Your task to perform on an android device: toggle data saver in the chrome app Image 0: 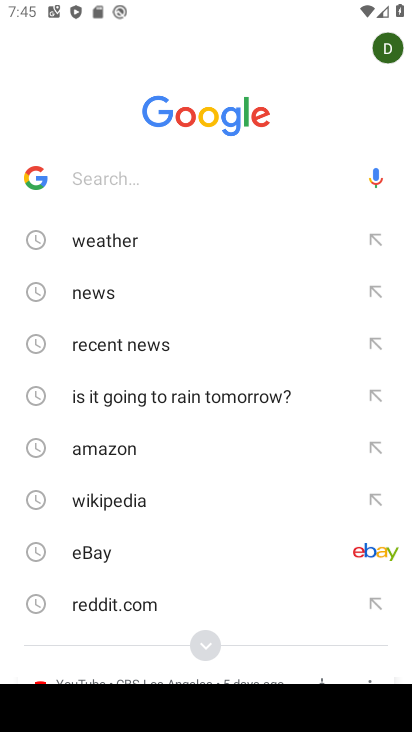
Step 0: press home button
Your task to perform on an android device: toggle data saver in the chrome app Image 1: 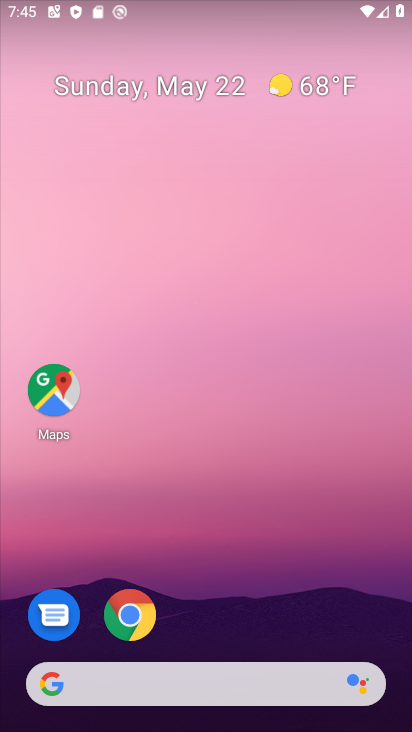
Step 1: click (151, 614)
Your task to perform on an android device: toggle data saver in the chrome app Image 2: 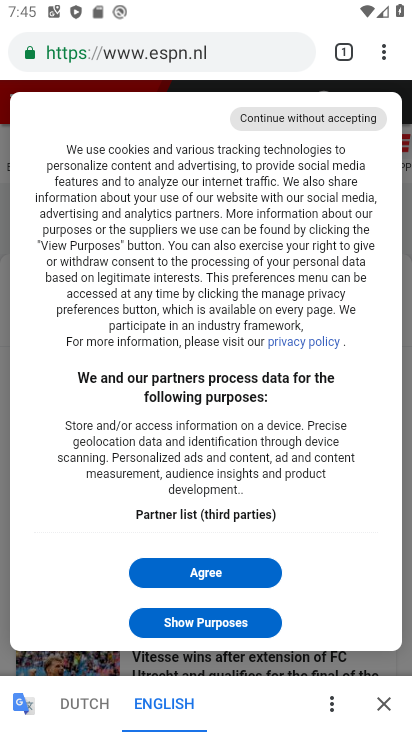
Step 2: click (389, 53)
Your task to perform on an android device: toggle data saver in the chrome app Image 3: 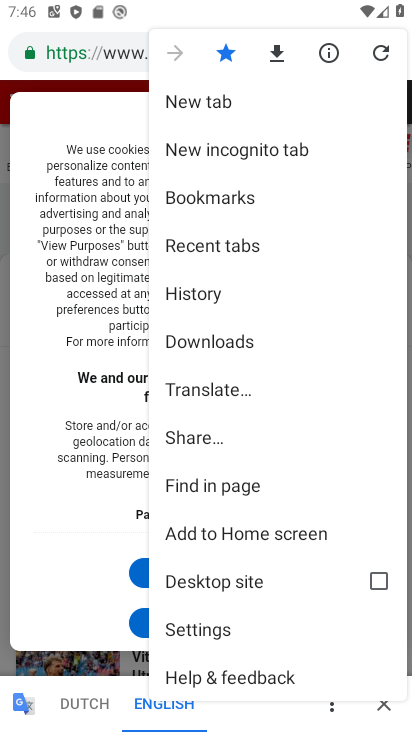
Step 3: click (188, 633)
Your task to perform on an android device: toggle data saver in the chrome app Image 4: 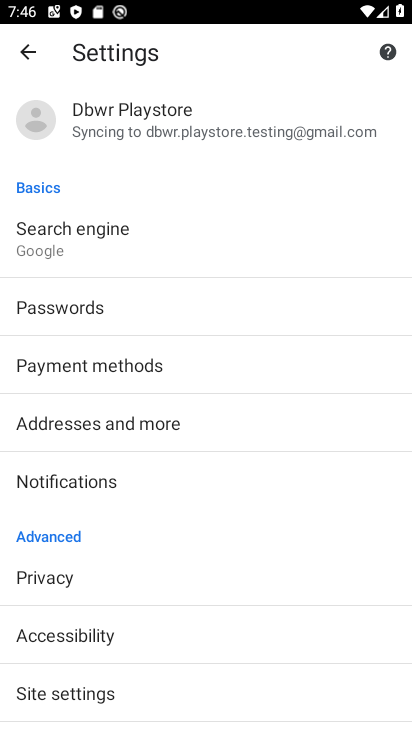
Step 4: drag from (188, 633) to (118, 88)
Your task to perform on an android device: toggle data saver in the chrome app Image 5: 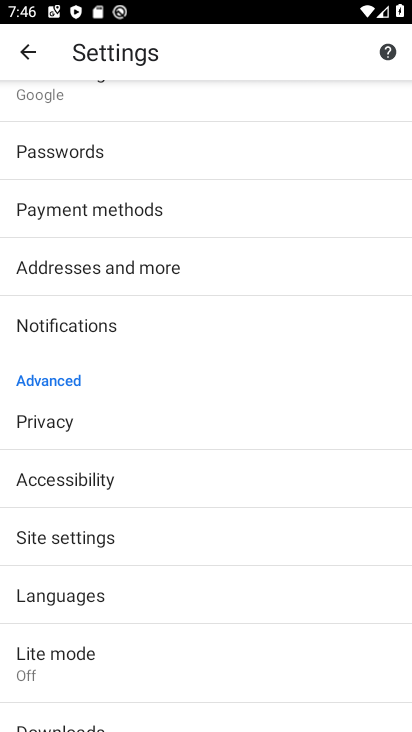
Step 5: click (30, 656)
Your task to perform on an android device: toggle data saver in the chrome app Image 6: 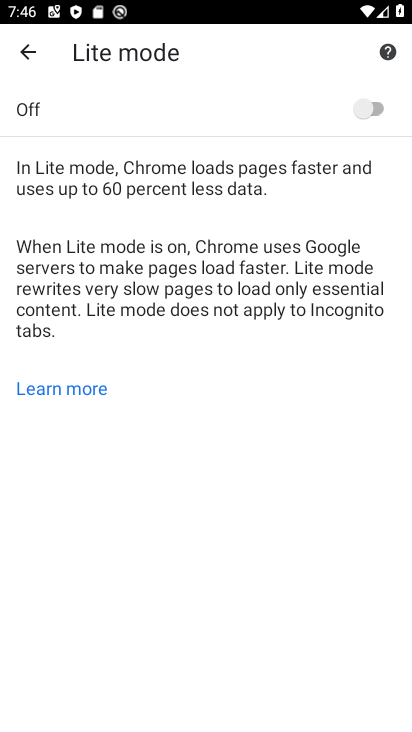
Step 6: click (363, 110)
Your task to perform on an android device: toggle data saver in the chrome app Image 7: 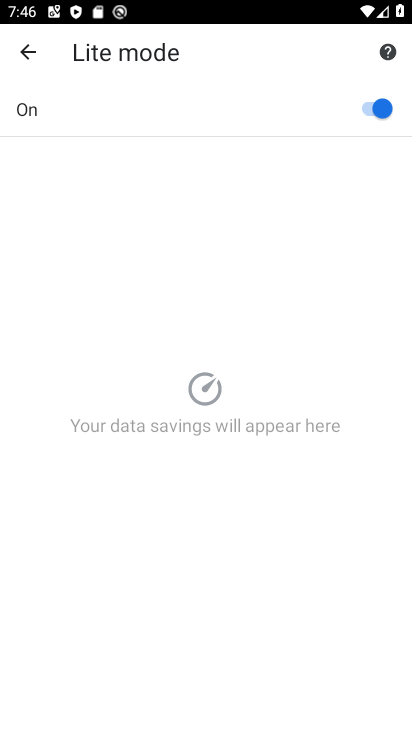
Step 7: task complete